Your task to perform on an android device: Open notification settings Image 0: 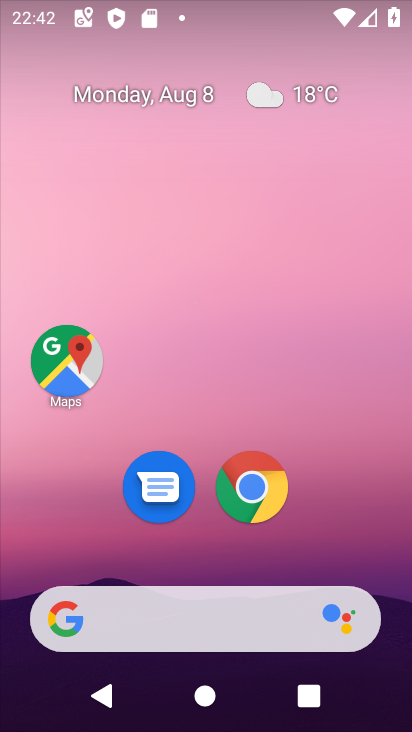
Step 0: drag from (200, 574) to (220, 35)
Your task to perform on an android device: Open notification settings Image 1: 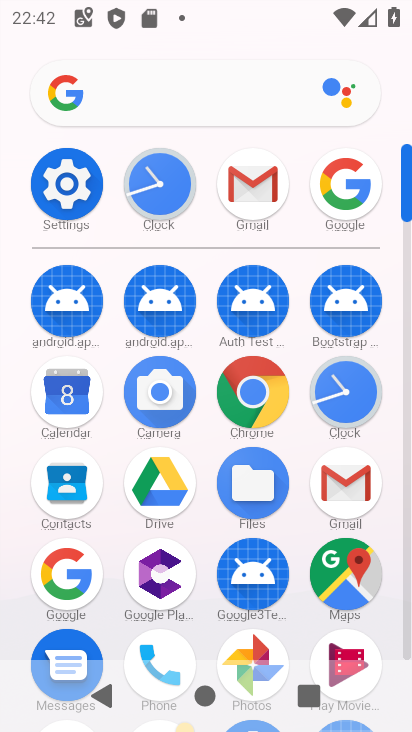
Step 1: click (67, 183)
Your task to perform on an android device: Open notification settings Image 2: 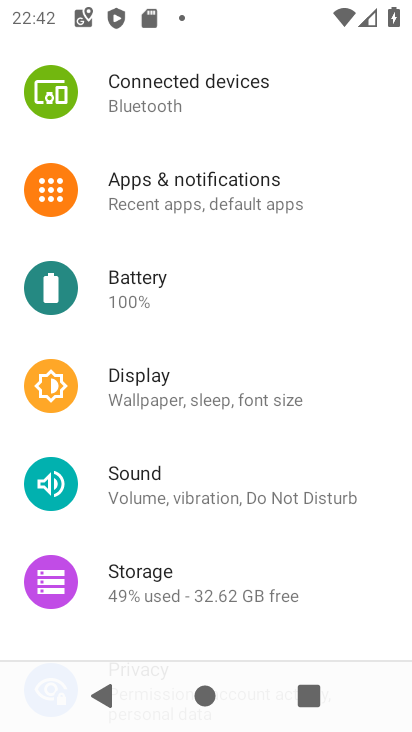
Step 2: click (192, 221)
Your task to perform on an android device: Open notification settings Image 3: 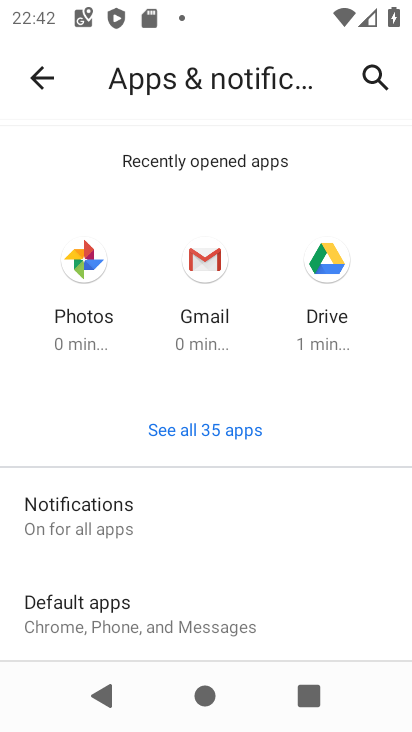
Step 3: click (111, 507)
Your task to perform on an android device: Open notification settings Image 4: 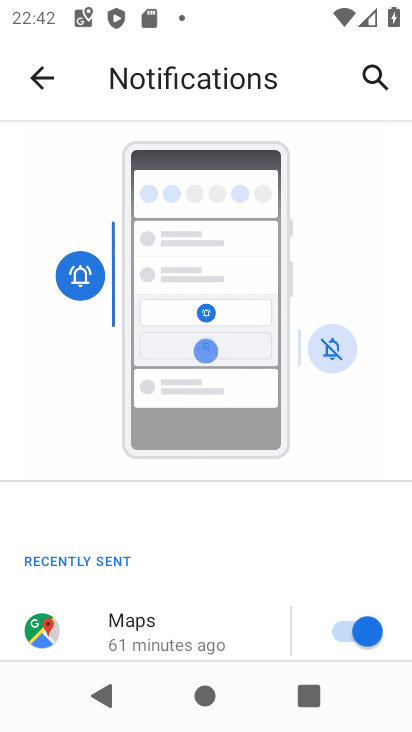
Step 4: task complete